Your task to perform on an android device: Turn on the flashlight Image 0: 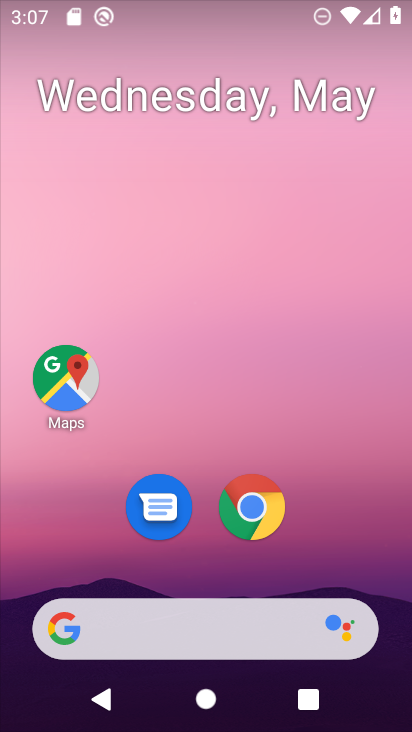
Step 0: drag from (203, 527) to (304, 90)
Your task to perform on an android device: Turn on the flashlight Image 1: 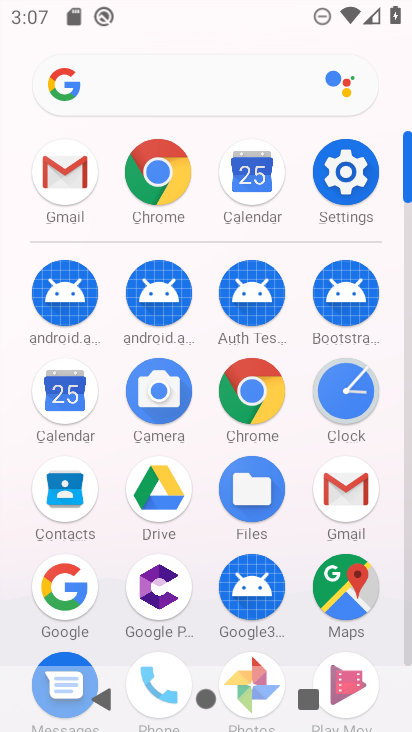
Step 1: click (359, 191)
Your task to perform on an android device: Turn on the flashlight Image 2: 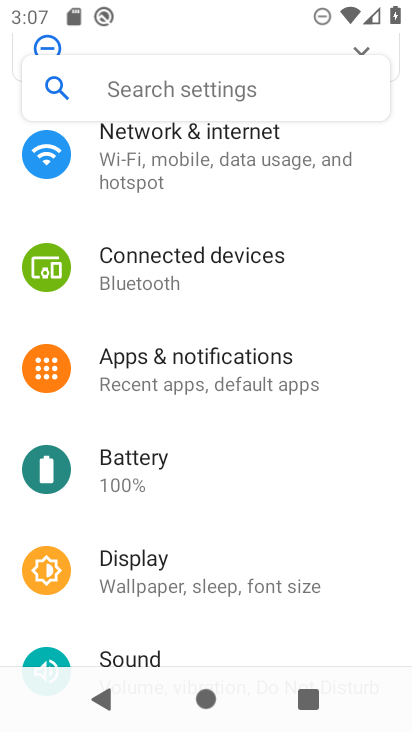
Step 2: click (191, 90)
Your task to perform on an android device: Turn on the flashlight Image 3: 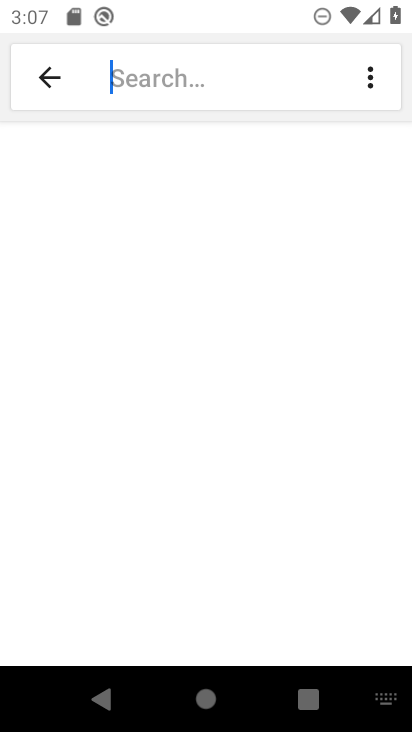
Step 3: type "flashlight"
Your task to perform on an android device: Turn on the flashlight Image 4: 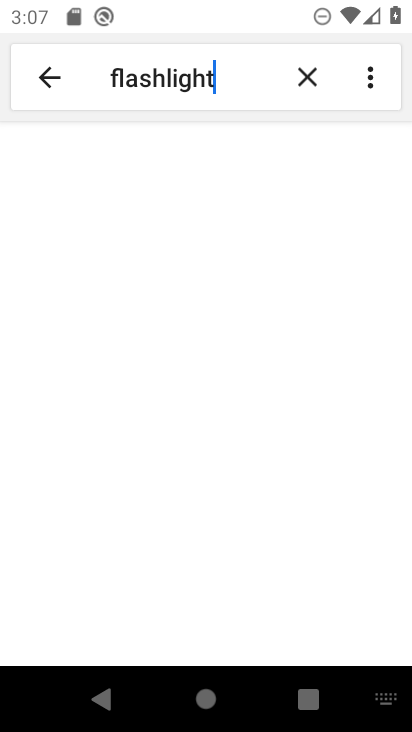
Step 4: click (144, 169)
Your task to perform on an android device: Turn on the flashlight Image 5: 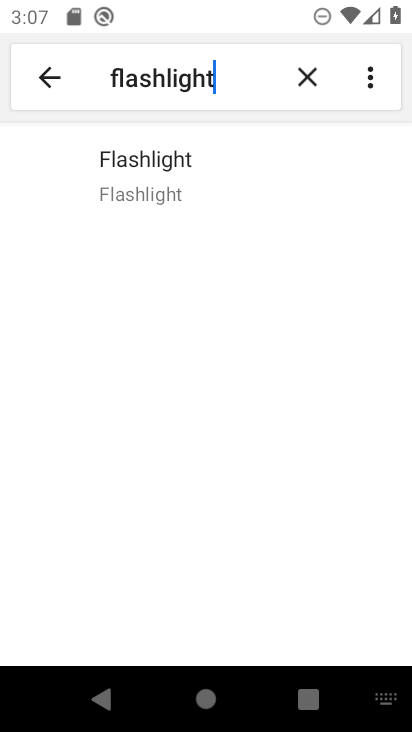
Step 5: click (135, 157)
Your task to perform on an android device: Turn on the flashlight Image 6: 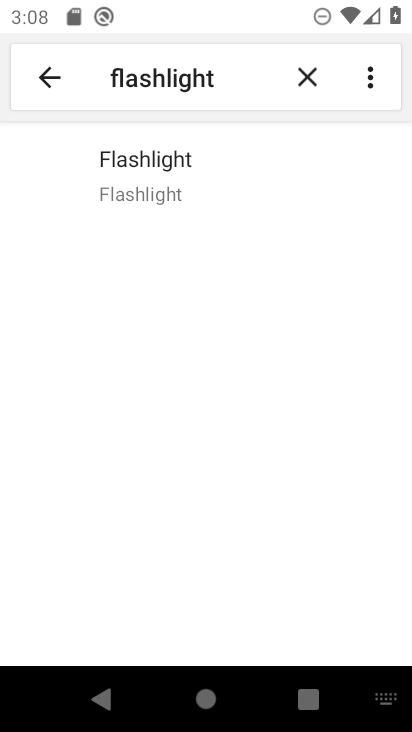
Step 6: task complete